Your task to perform on an android device: Open the calculator Image 0: 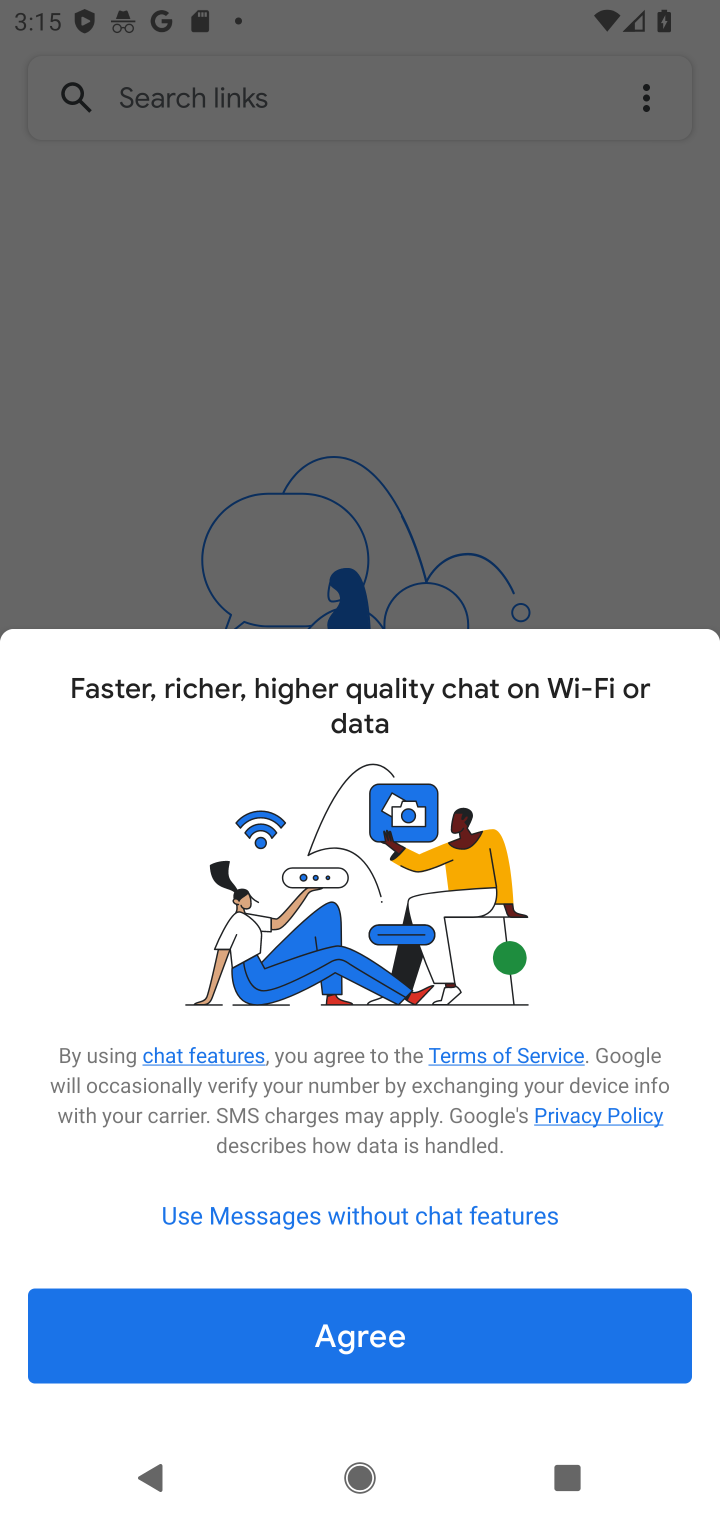
Step 0: press home button
Your task to perform on an android device: Open the calculator Image 1: 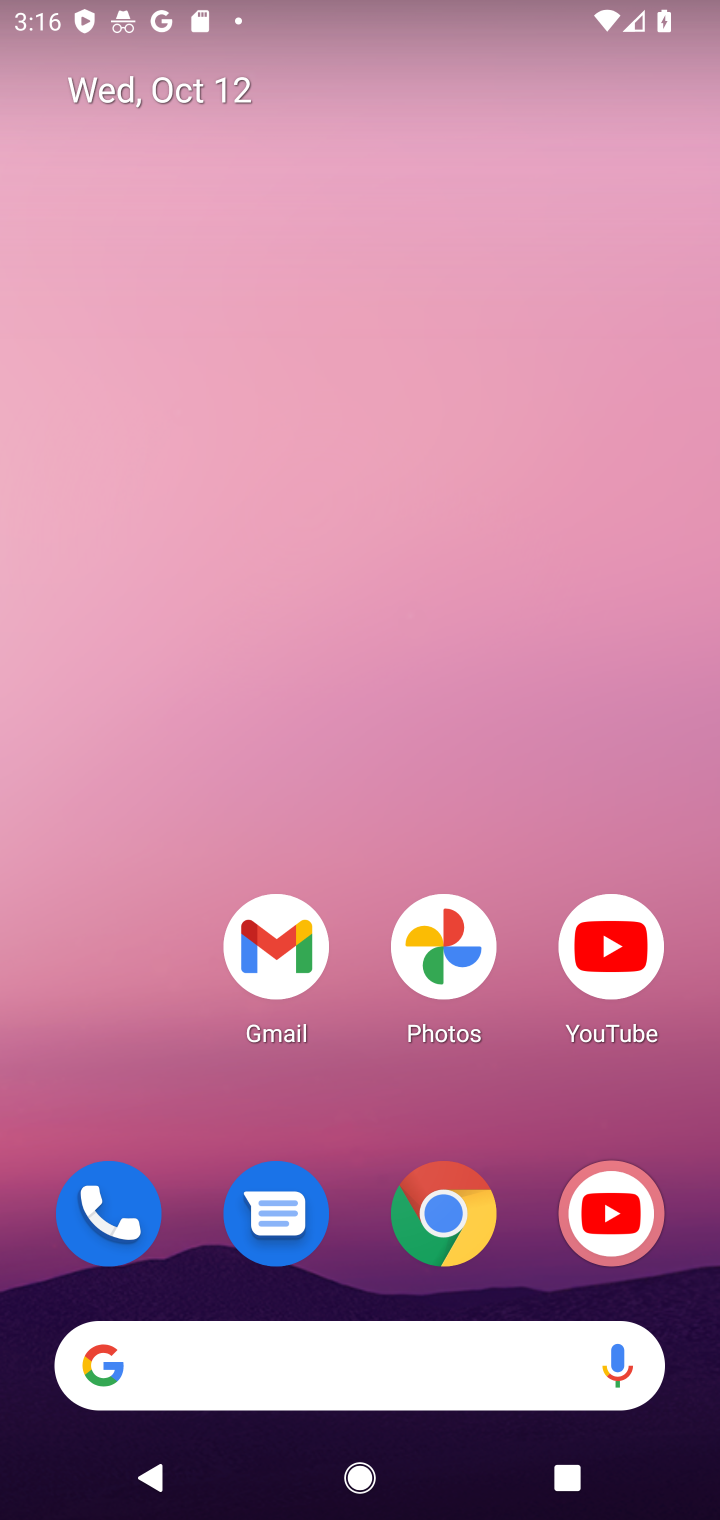
Step 1: task complete